Your task to perform on an android device: Open location settings Image 0: 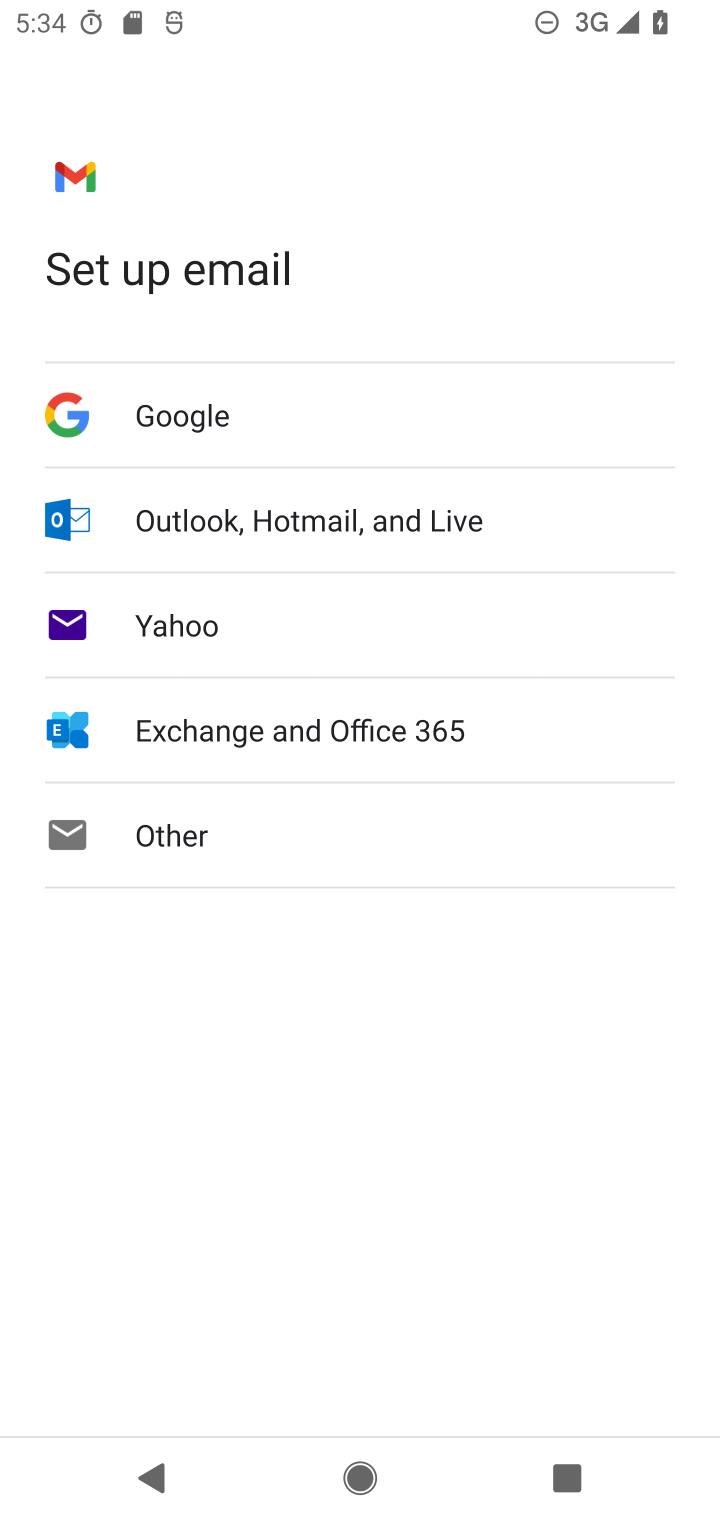
Step 0: press home button
Your task to perform on an android device: Open location settings Image 1: 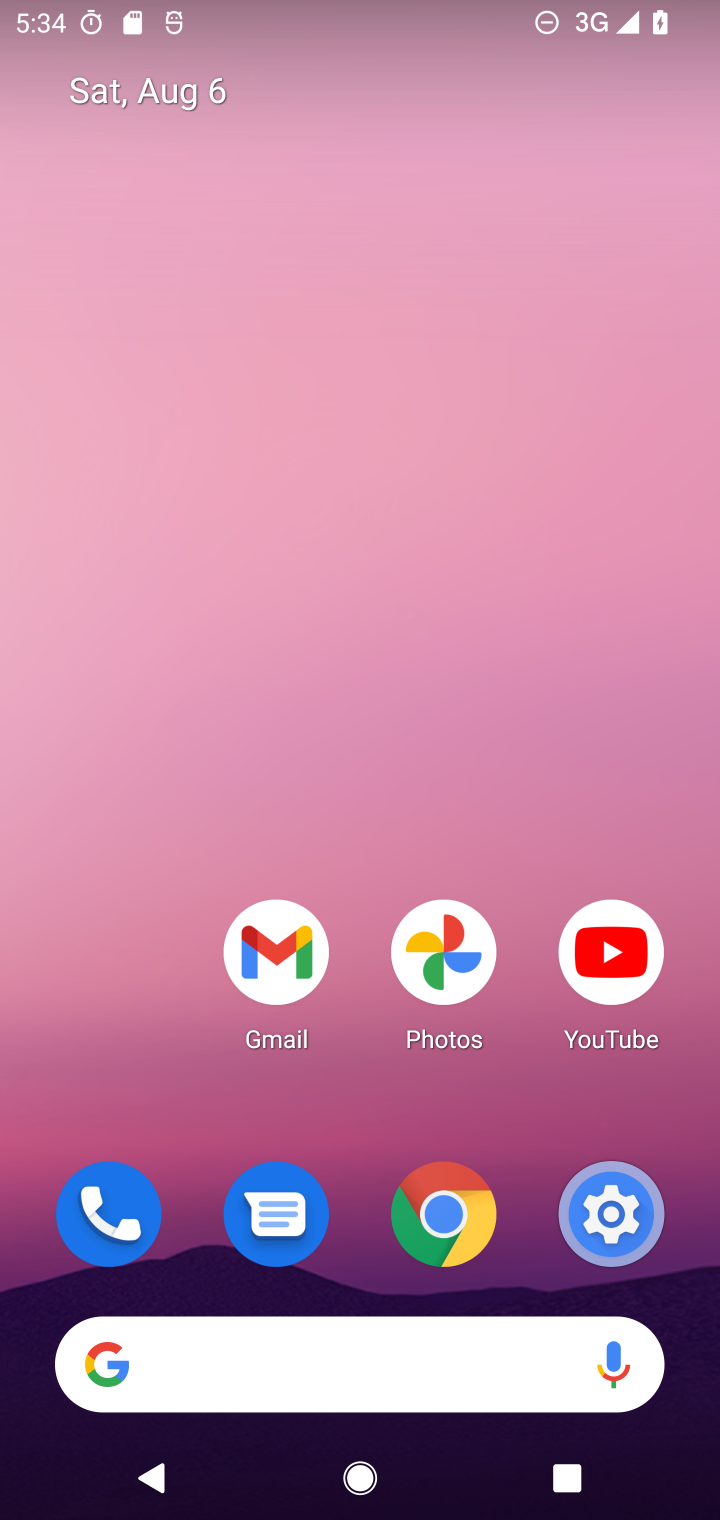
Step 1: click (601, 1219)
Your task to perform on an android device: Open location settings Image 2: 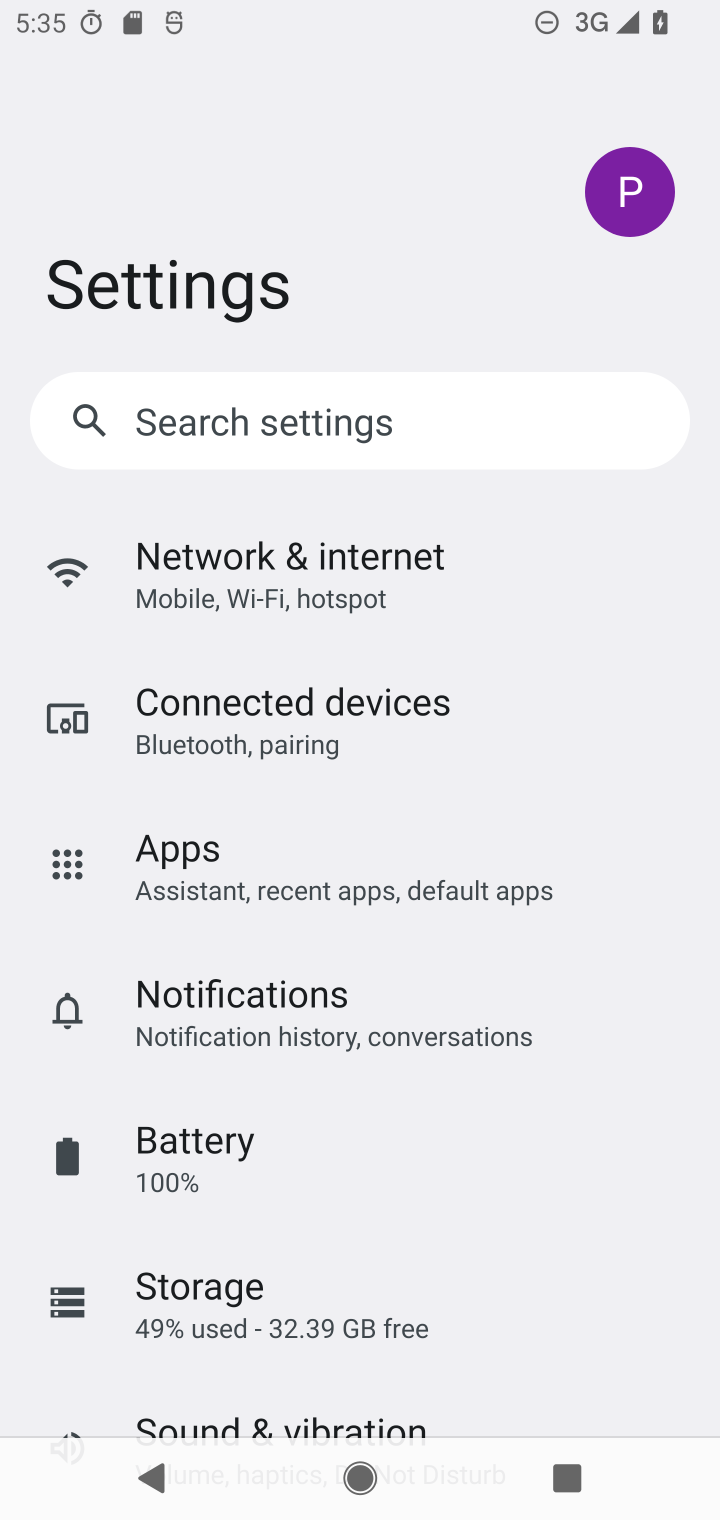
Step 2: drag from (293, 1285) to (296, 394)
Your task to perform on an android device: Open location settings Image 3: 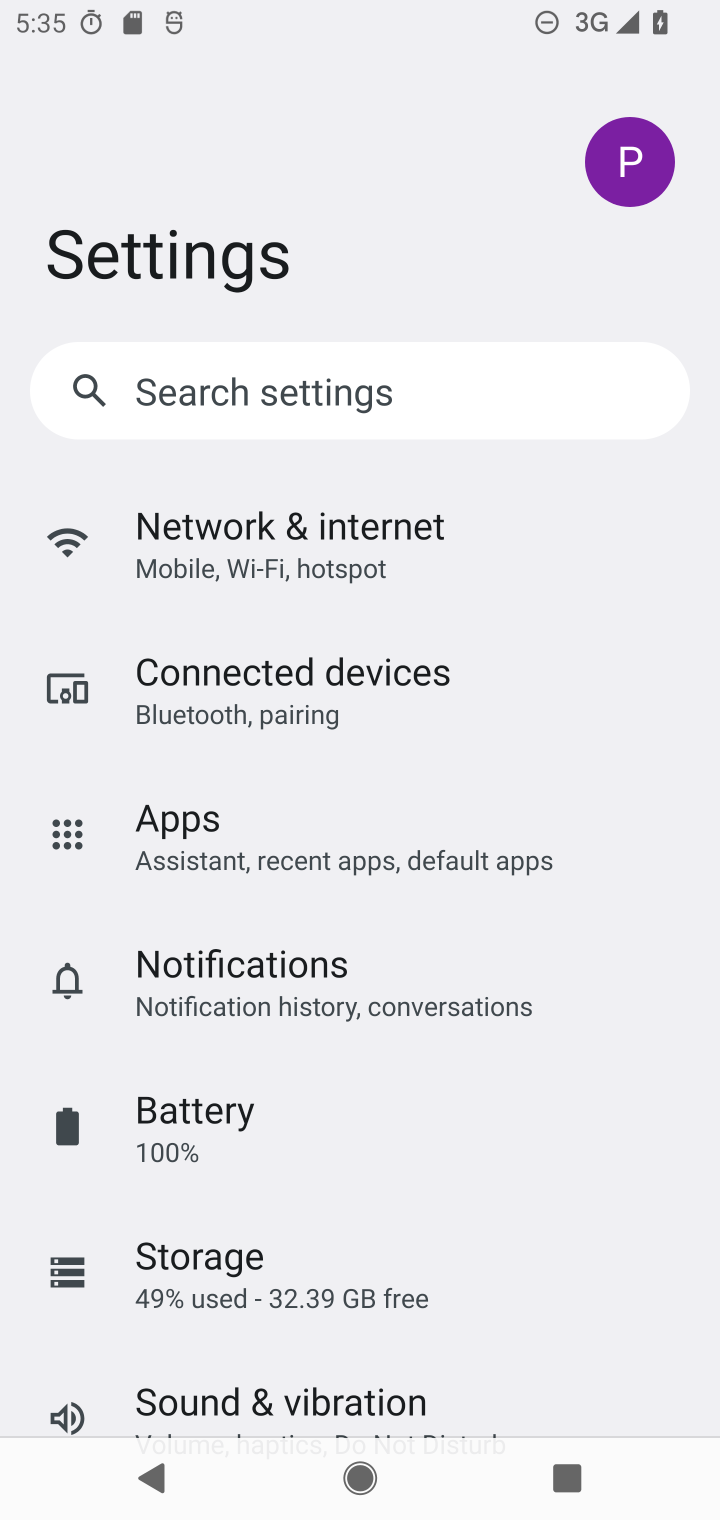
Step 3: click (249, 698)
Your task to perform on an android device: Open location settings Image 4: 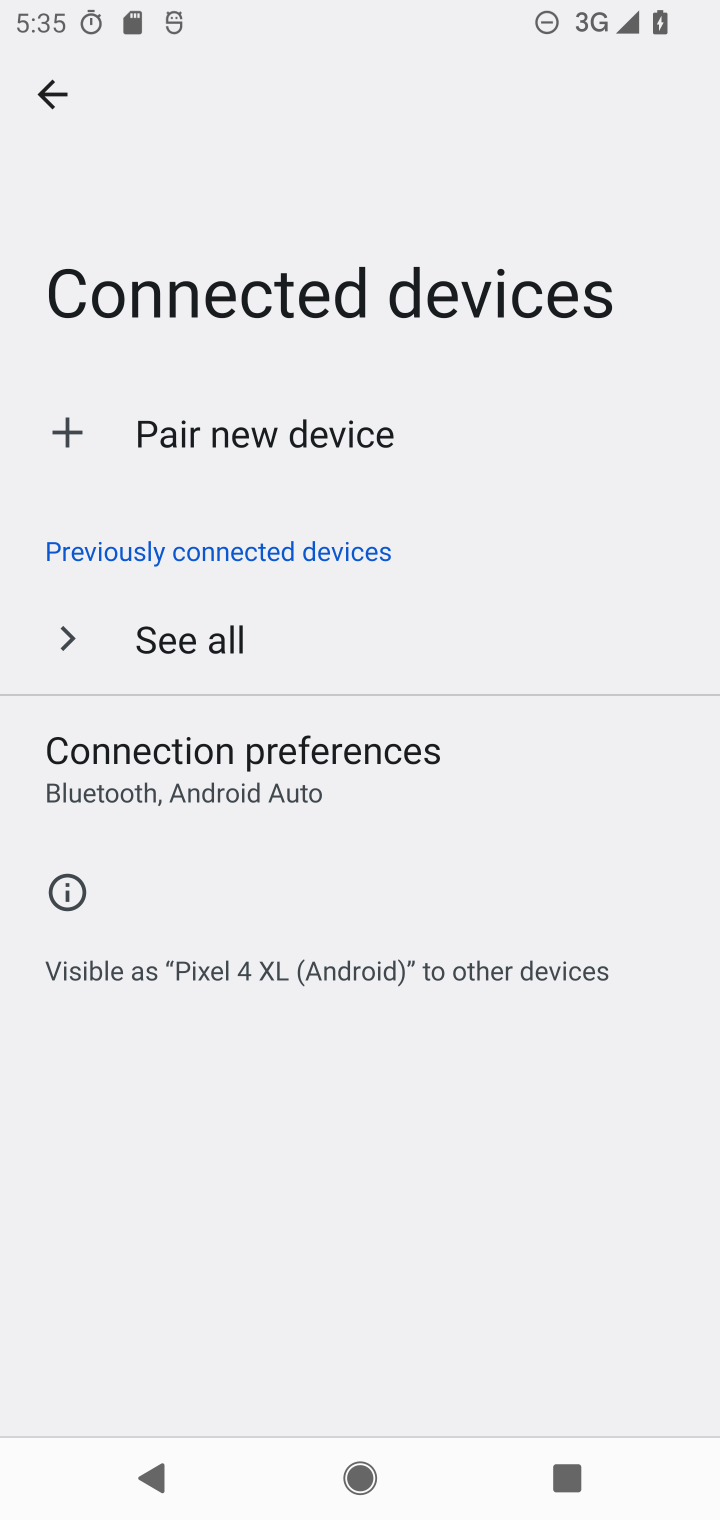
Step 4: click (47, 83)
Your task to perform on an android device: Open location settings Image 5: 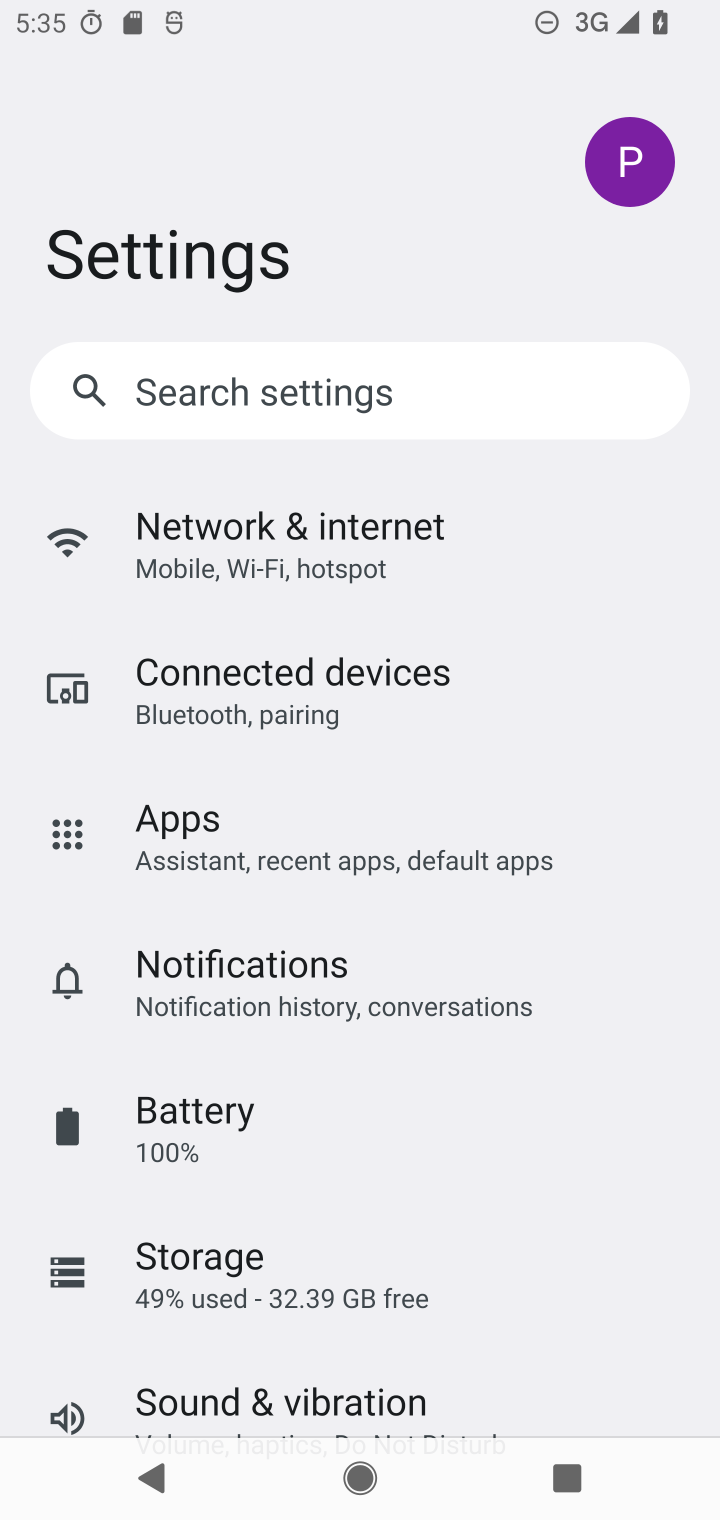
Step 5: drag from (254, 1309) to (295, 689)
Your task to perform on an android device: Open location settings Image 6: 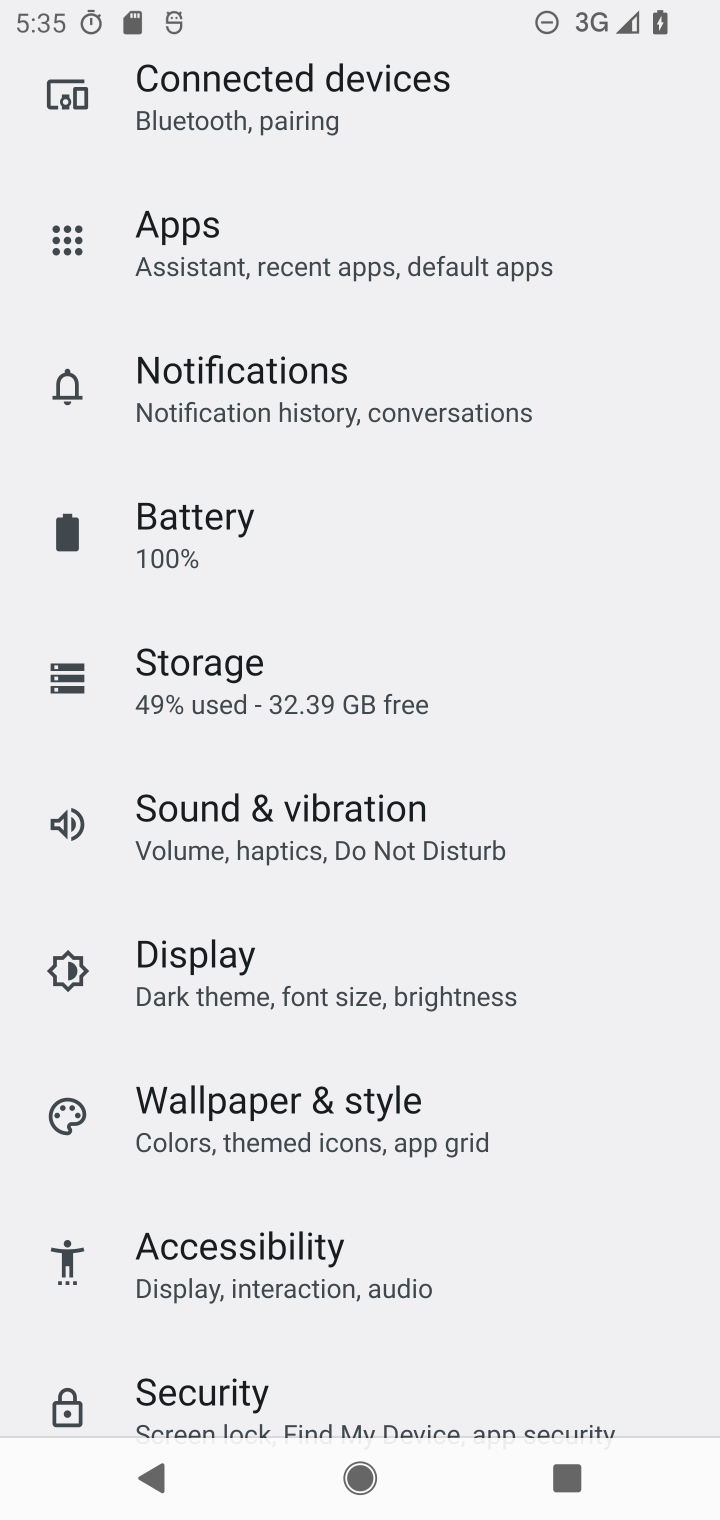
Step 6: drag from (253, 1069) to (254, 818)
Your task to perform on an android device: Open location settings Image 7: 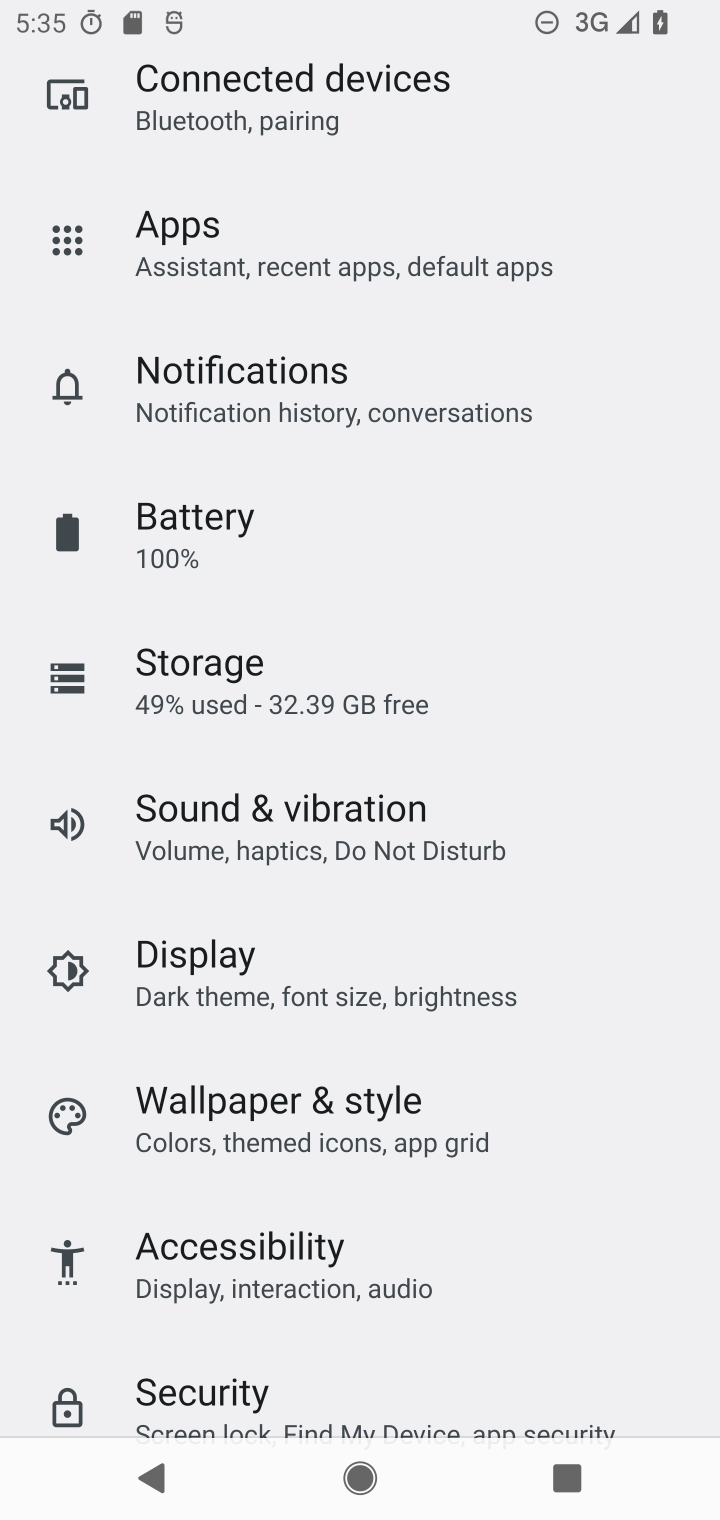
Step 7: drag from (221, 1132) to (221, 664)
Your task to perform on an android device: Open location settings Image 8: 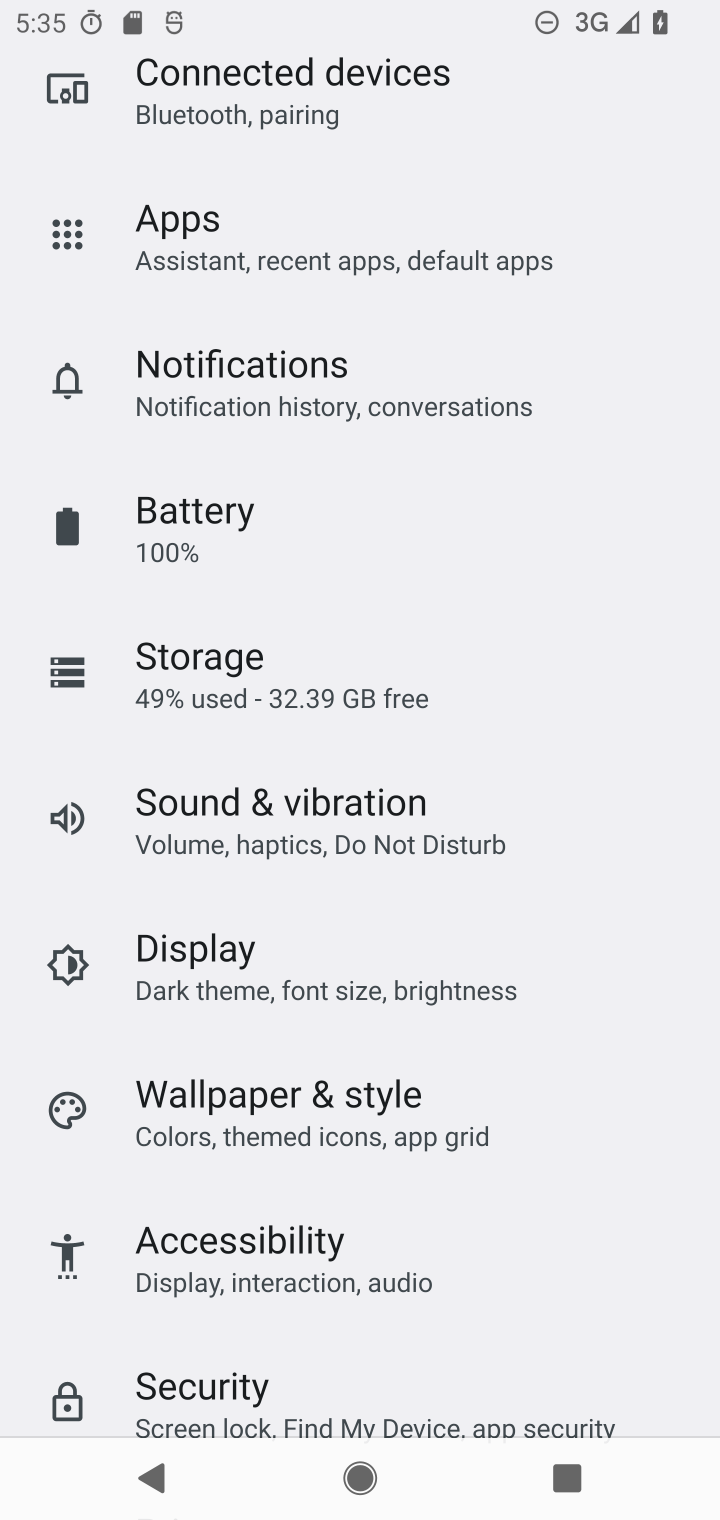
Step 8: drag from (362, 1210) to (393, 574)
Your task to perform on an android device: Open location settings Image 9: 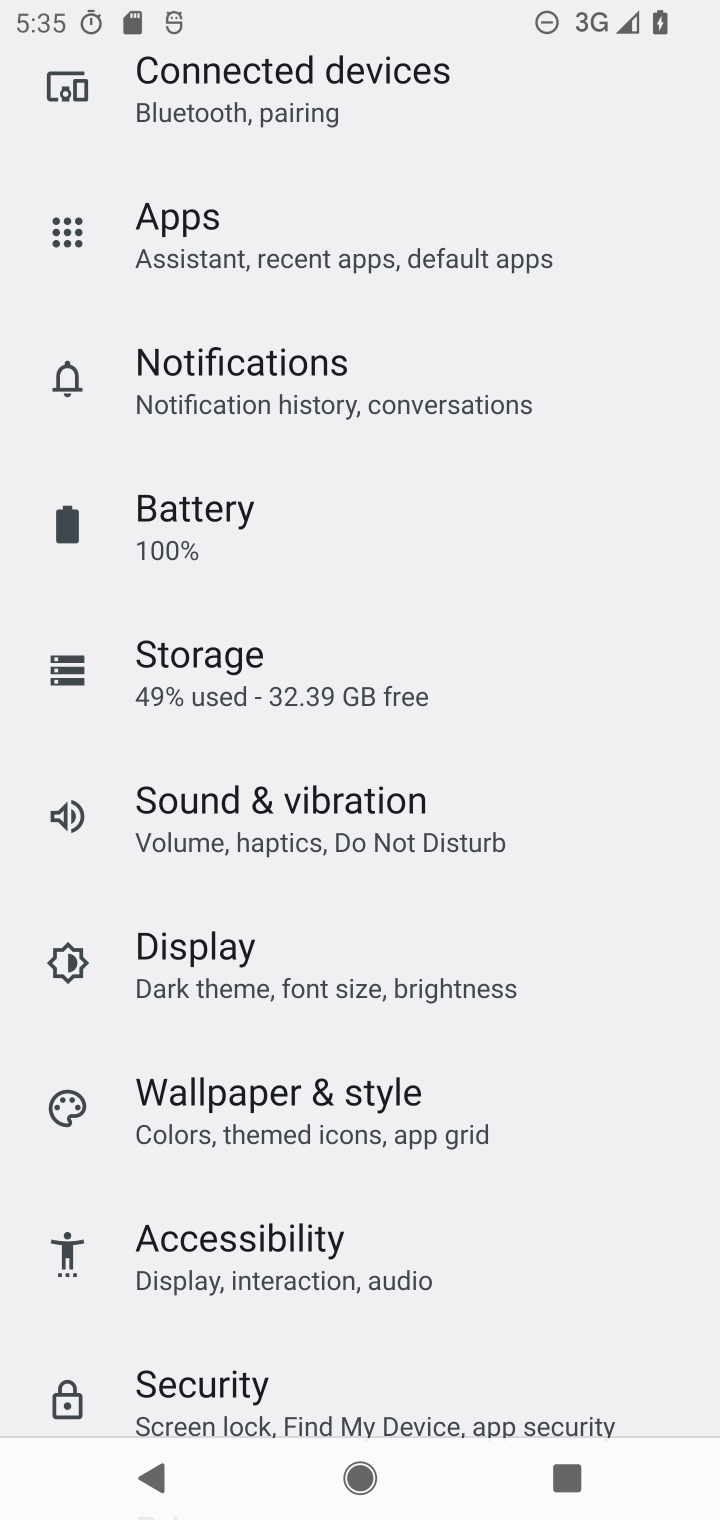
Step 9: drag from (215, 1280) to (206, 538)
Your task to perform on an android device: Open location settings Image 10: 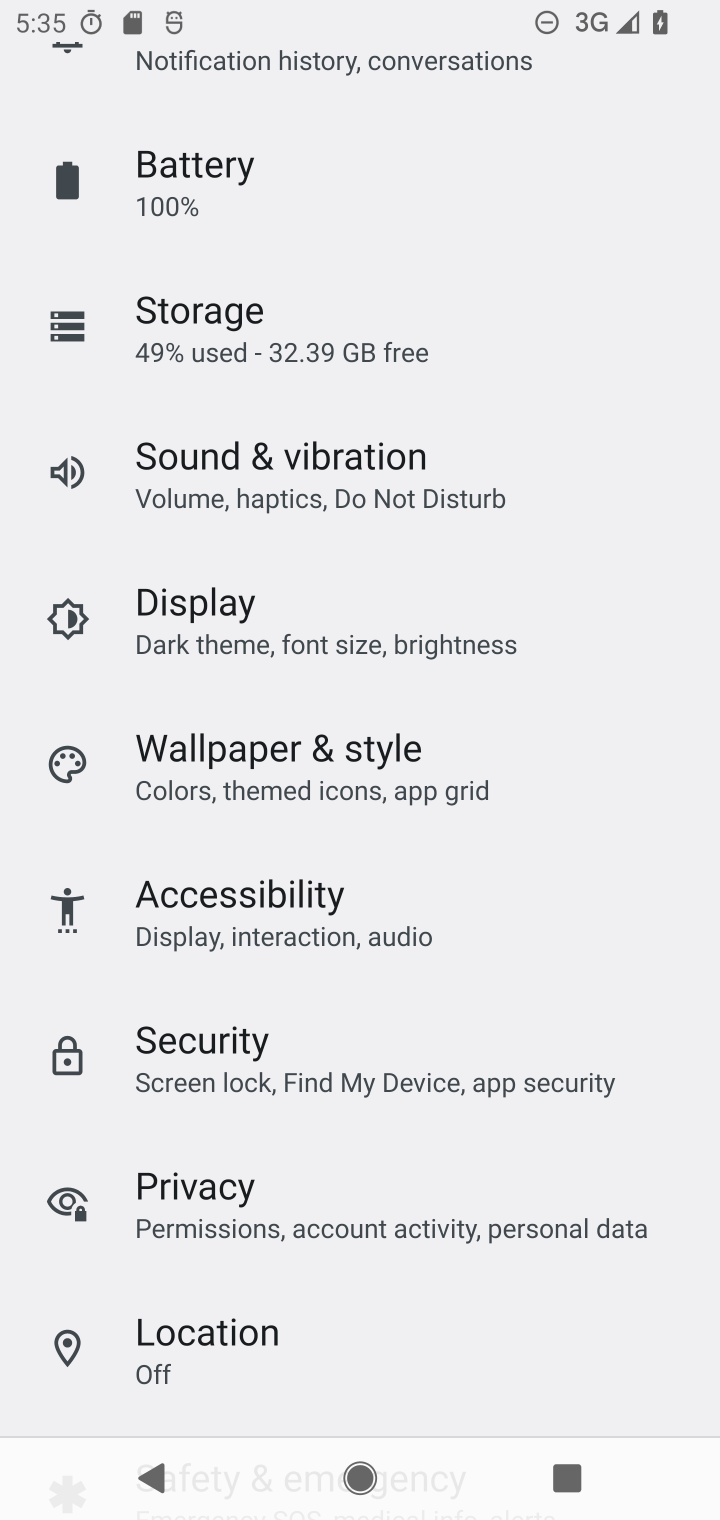
Step 10: click (233, 1348)
Your task to perform on an android device: Open location settings Image 11: 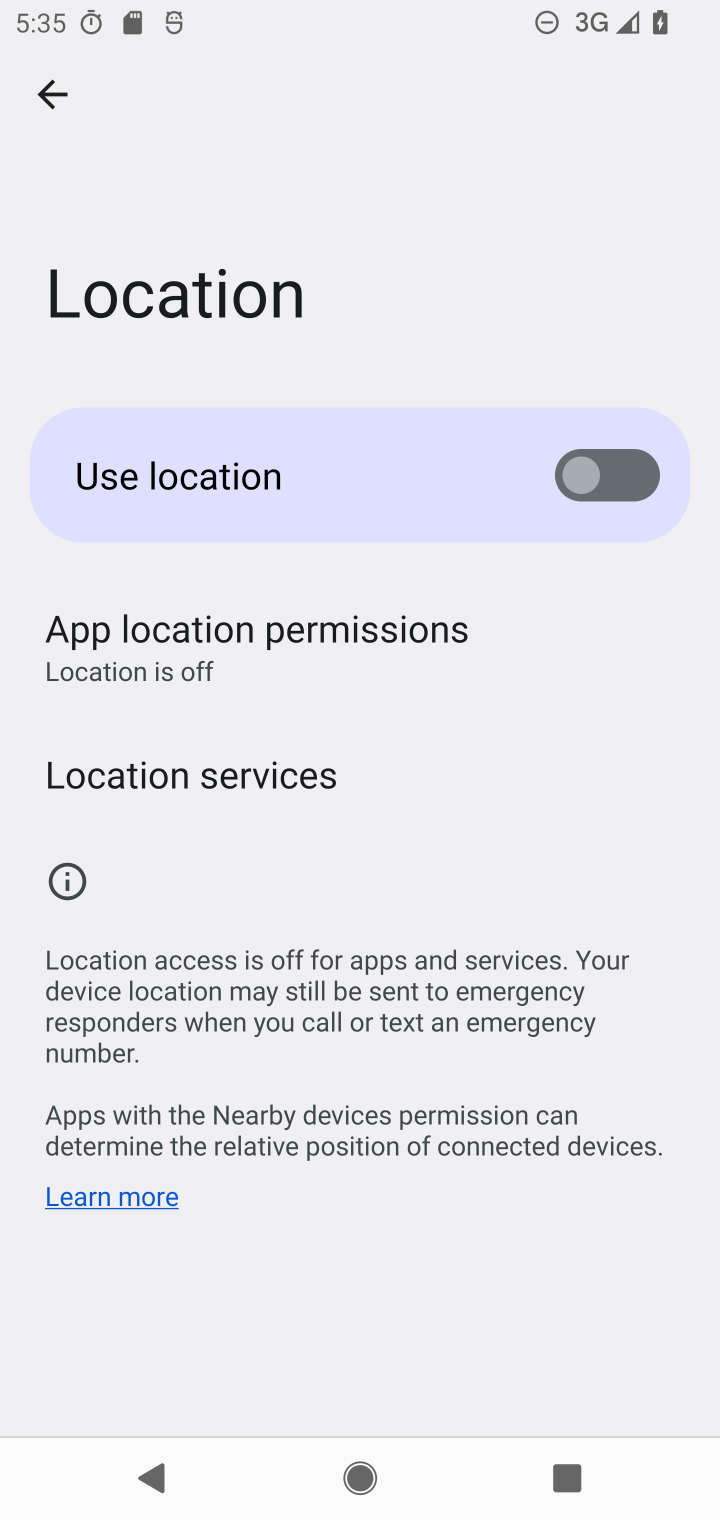
Step 11: task complete